Your task to perform on an android device: star an email in the gmail app Image 0: 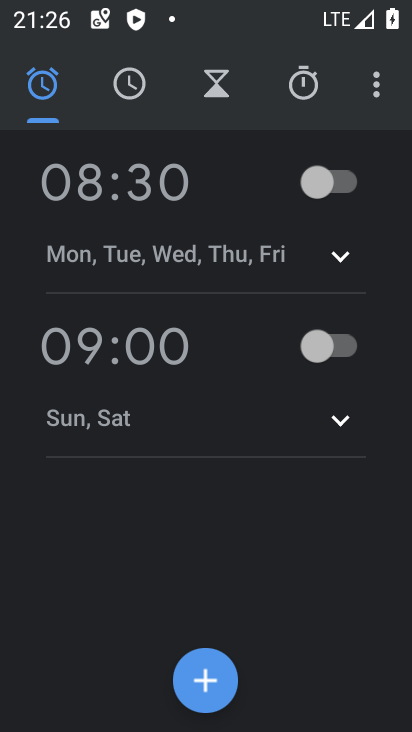
Step 0: press home button
Your task to perform on an android device: star an email in the gmail app Image 1: 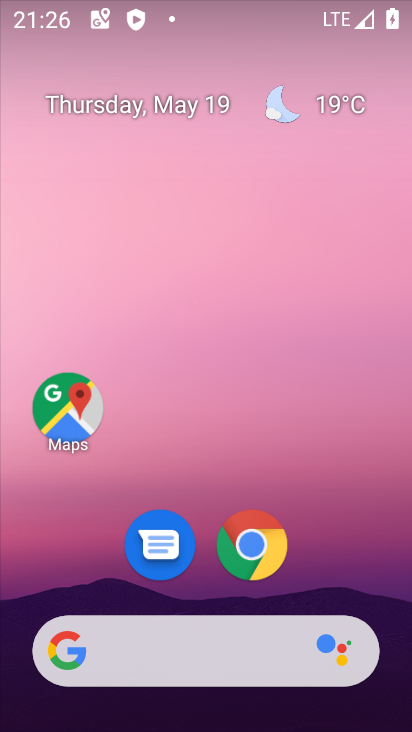
Step 1: drag from (351, 572) to (355, 67)
Your task to perform on an android device: star an email in the gmail app Image 2: 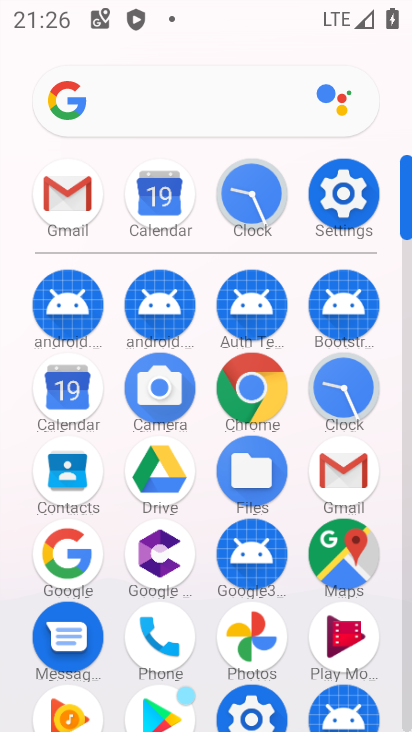
Step 2: click (76, 210)
Your task to perform on an android device: star an email in the gmail app Image 3: 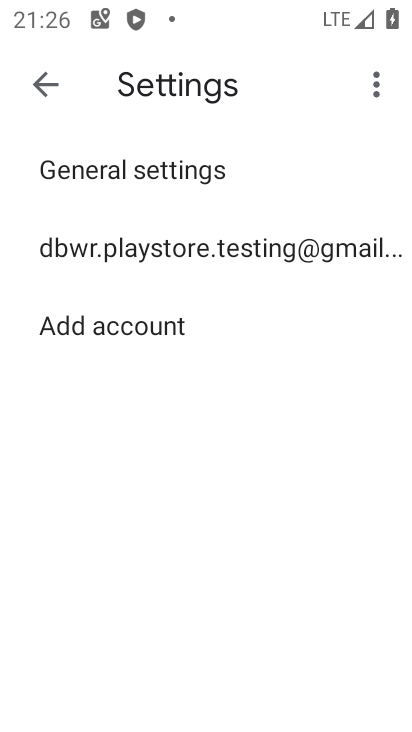
Step 3: click (48, 117)
Your task to perform on an android device: star an email in the gmail app Image 4: 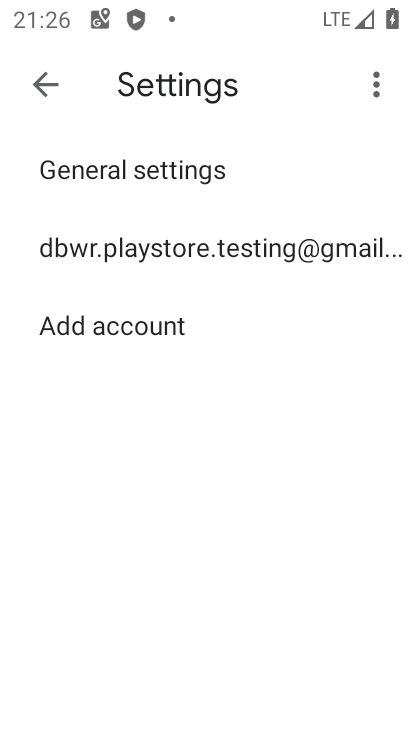
Step 4: click (35, 100)
Your task to perform on an android device: star an email in the gmail app Image 5: 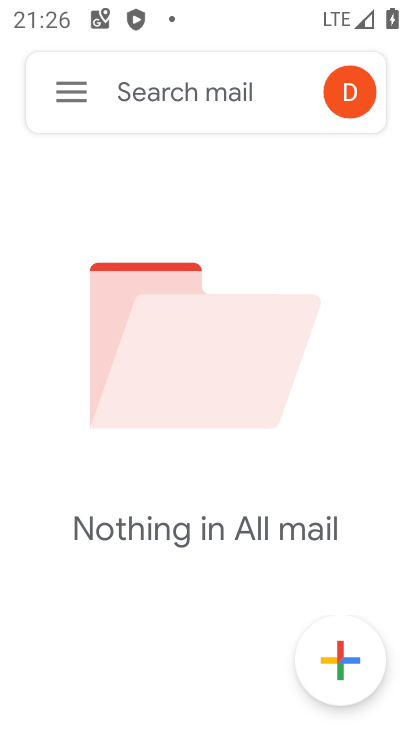
Step 5: click (94, 76)
Your task to perform on an android device: star an email in the gmail app Image 6: 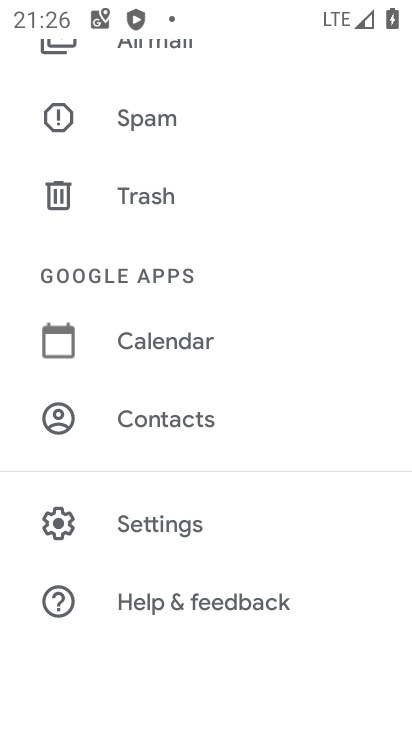
Step 6: drag from (154, 185) to (155, 478)
Your task to perform on an android device: star an email in the gmail app Image 7: 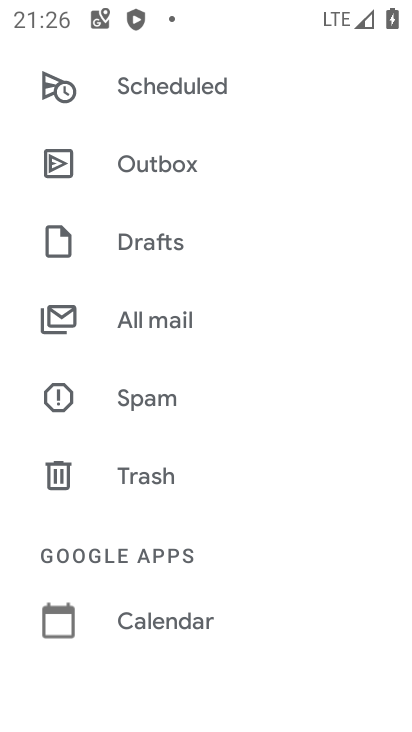
Step 7: drag from (187, 120) to (197, 560)
Your task to perform on an android device: star an email in the gmail app Image 8: 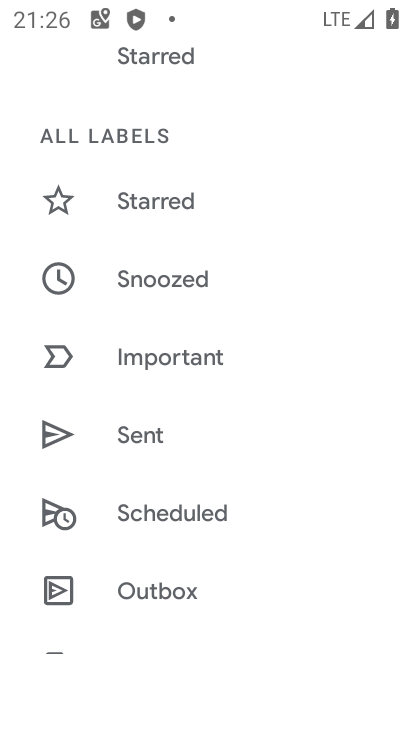
Step 8: click (218, 141)
Your task to perform on an android device: star an email in the gmail app Image 9: 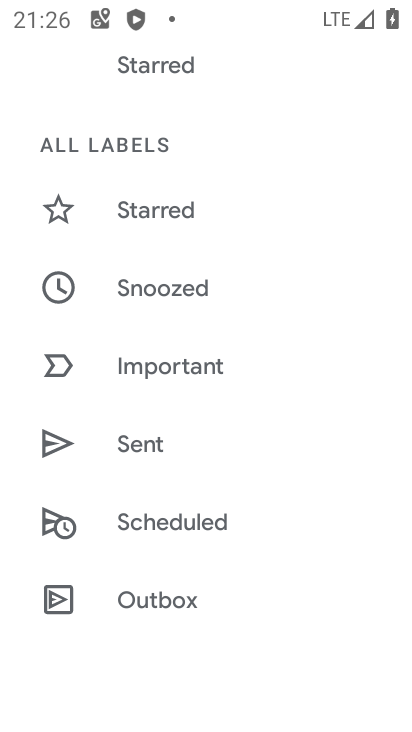
Step 9: click (194, 196)
Your task to perform on an android device: star an email in the gmail app Image 10: 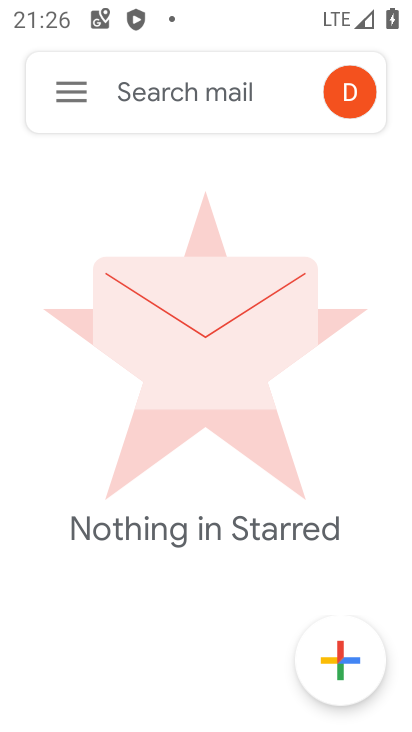
Step 10: task complete